Your task to perform on an android device: Search for seafood restaurants on Google Maps Image 0: 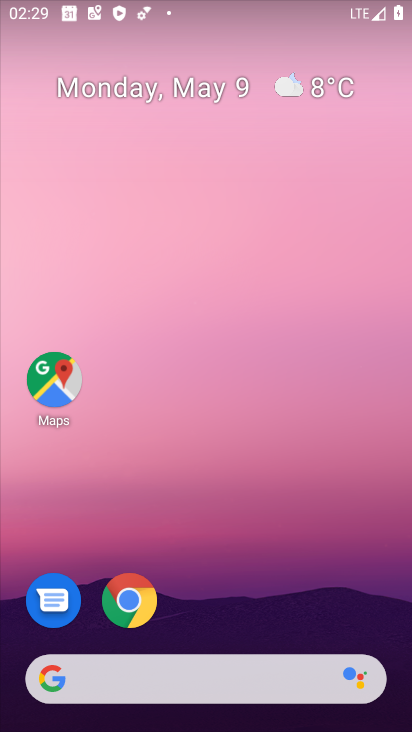
Step 0: drag from (229, 631) to (255, 28)
Your task to perform on an android device: Search for seafood restaurants on Google Maps Image 1: 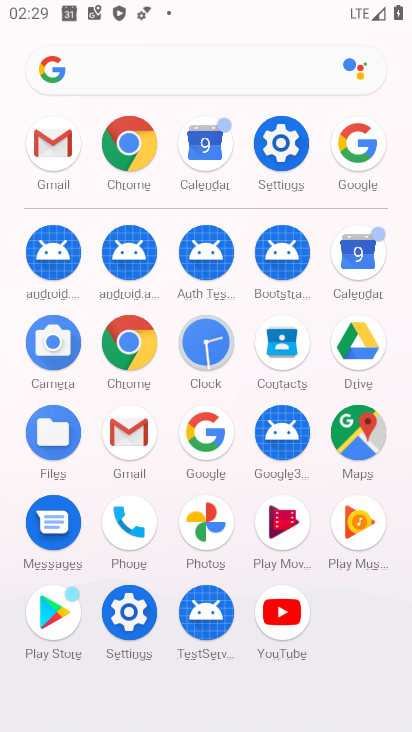
Step 1: click (359, 430)
Your task to perform on an android device: Search for seafood restaurants on Google Maps Image 2: 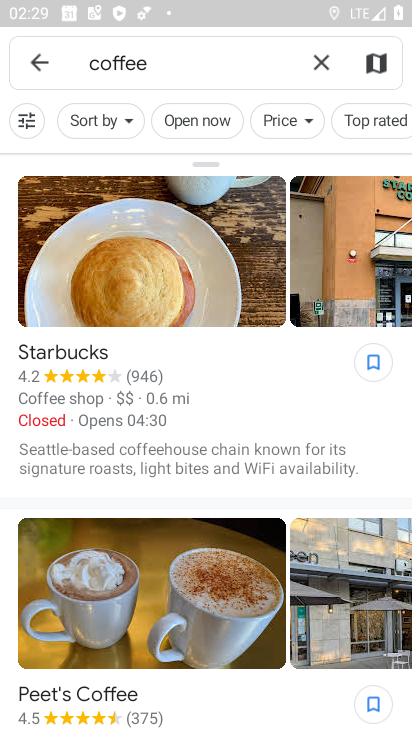
Step 2: click (320, 58)
Your task to perform on an android device: Search for seafood restaurants on Google Maps Image 3: 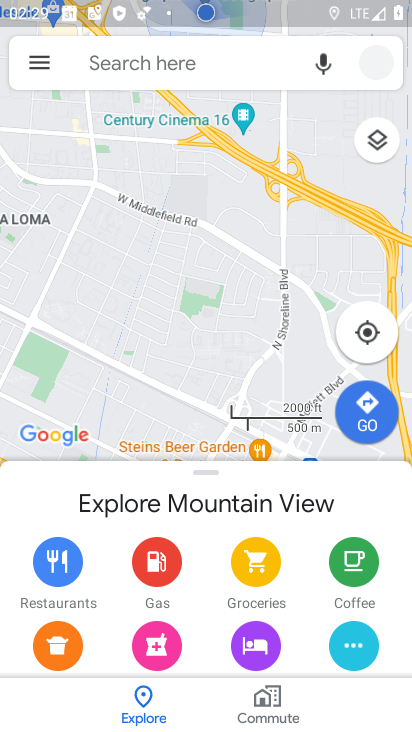
Step 3: click (144, 53)
Your task to perform on an android device: Search for seafood restaurants on Google Maps Image 4: 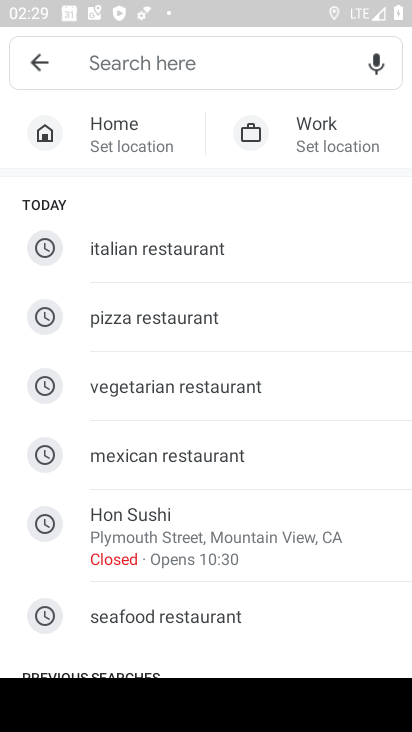
Step 4: click (177, 616)
Your task to perform on an android device: Search for seafood restaurants on Google Maps Image 5: 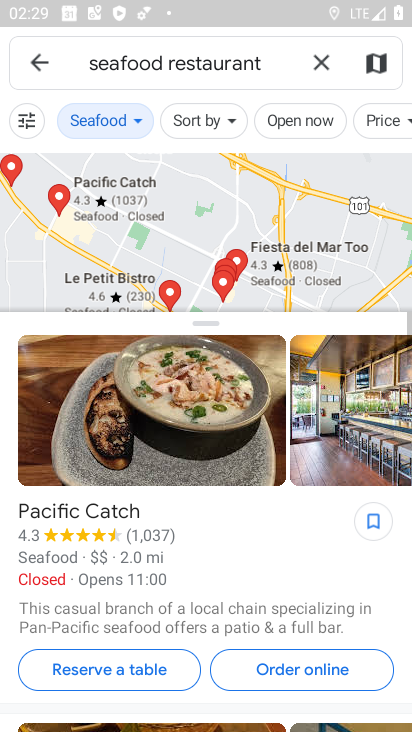
Step 5: task complete